Your task to perform on an android device: clear all cookies in the chrome app Image 0: 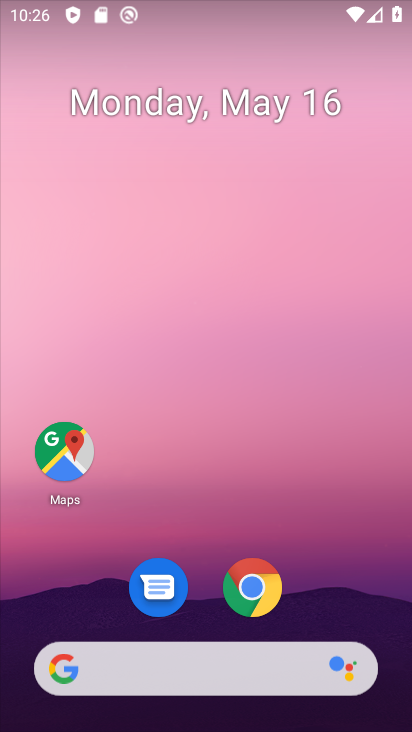
Step 0: drag from (380, 619) to (302, 43)
Your task to perform on an android device: clear all cookies in the chrome app Image 1: 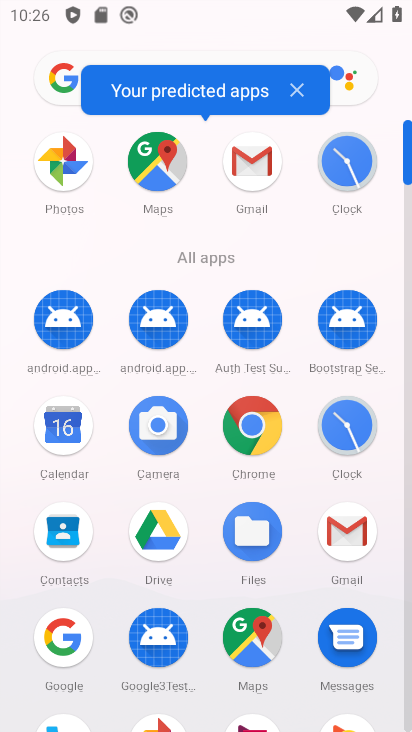
Step 1: click (243, 427)
Your task to perform on an android device: clear all cookies in the chrome app Image 2: 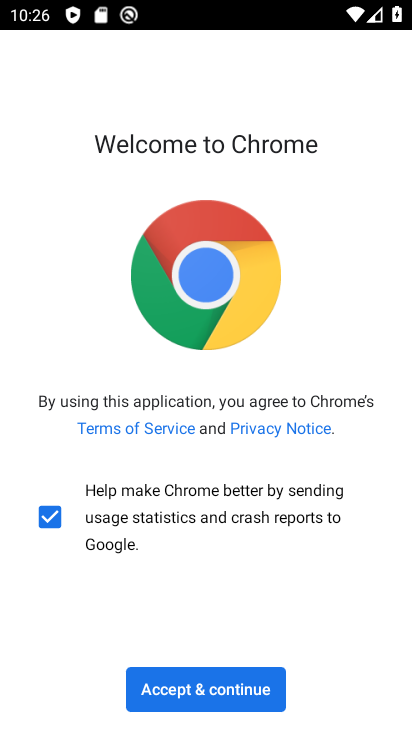
Step 2: click (222, 687)
Your task to perform on an android device: clear all cookies in the chrome app Image 3: 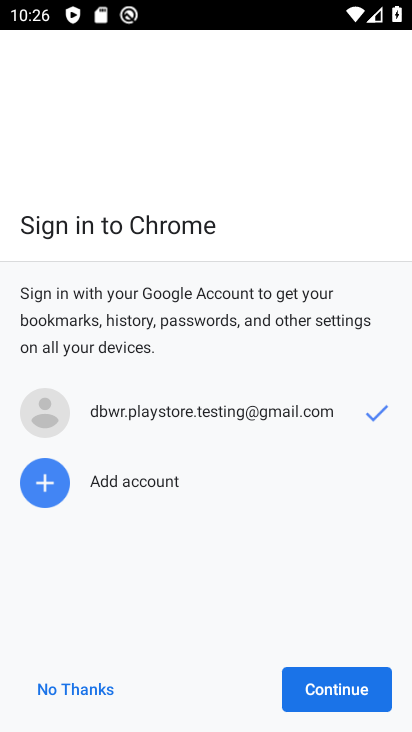
Step 3: click (354, 704)
Your task to perform on an android device: clear all cookies in the chrome app Image 4: 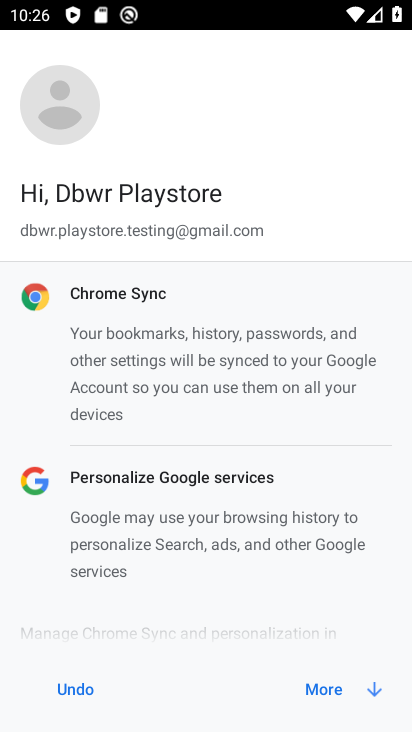
Step 4: click (354, 704)
Your task to perform on an android device: clear all cookies in the chrome app Image 5: 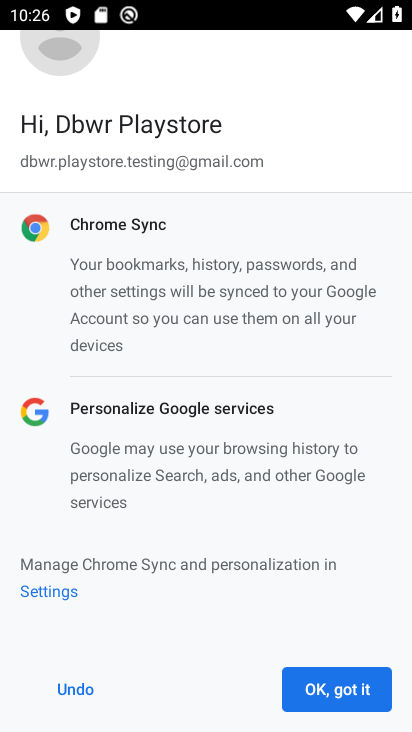
Step 5: click (354, 704)
Your task to perform on an android device: clear all cookies in the chrome app Image 6: 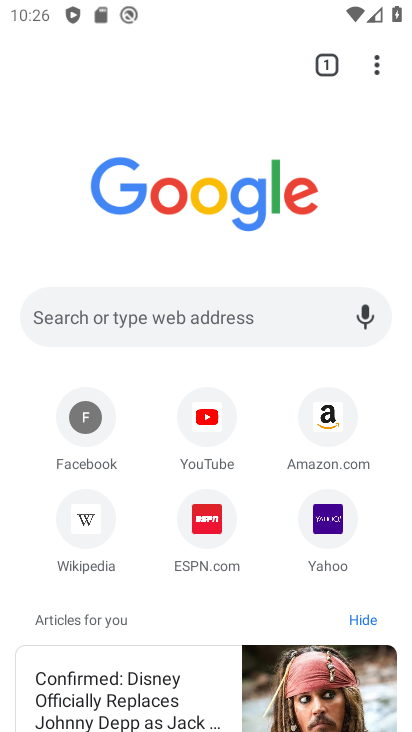
Step 6: click (379, 56)
Your task to perform on an android device: clear all cookies in the chrome app Image 7: 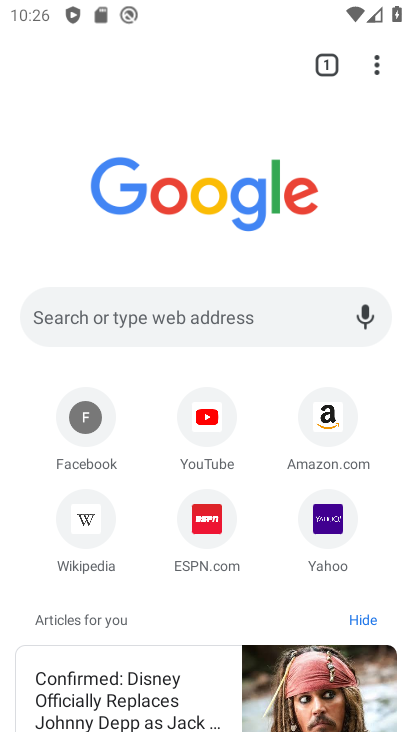
Step 7: click (376, 62)
Your task to perform on an android device: clear all cookies in the chrome app Image 8: 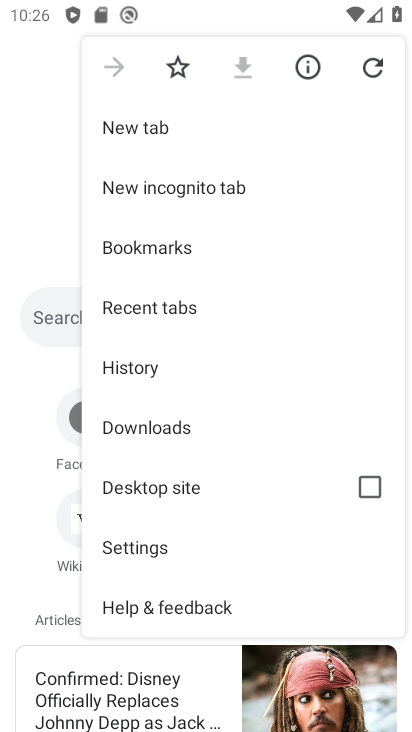
Step 8: click (165, 361)
Your task to perform on an android device: clear all cookies in the chrome app Image 9: 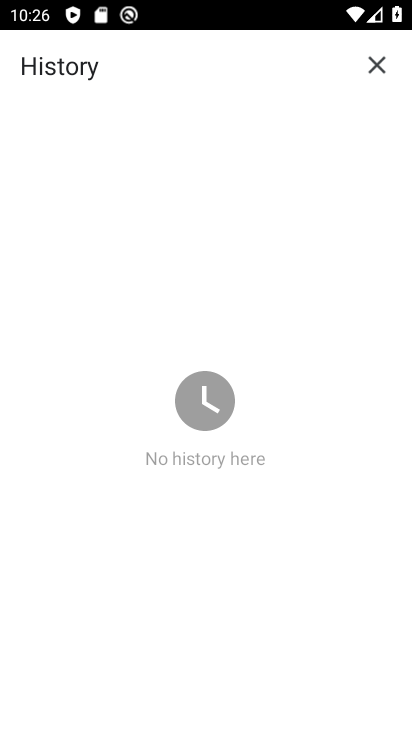
Step 9: task complete